Your task to perform on an android device: What's on my calendar today? Image 0: 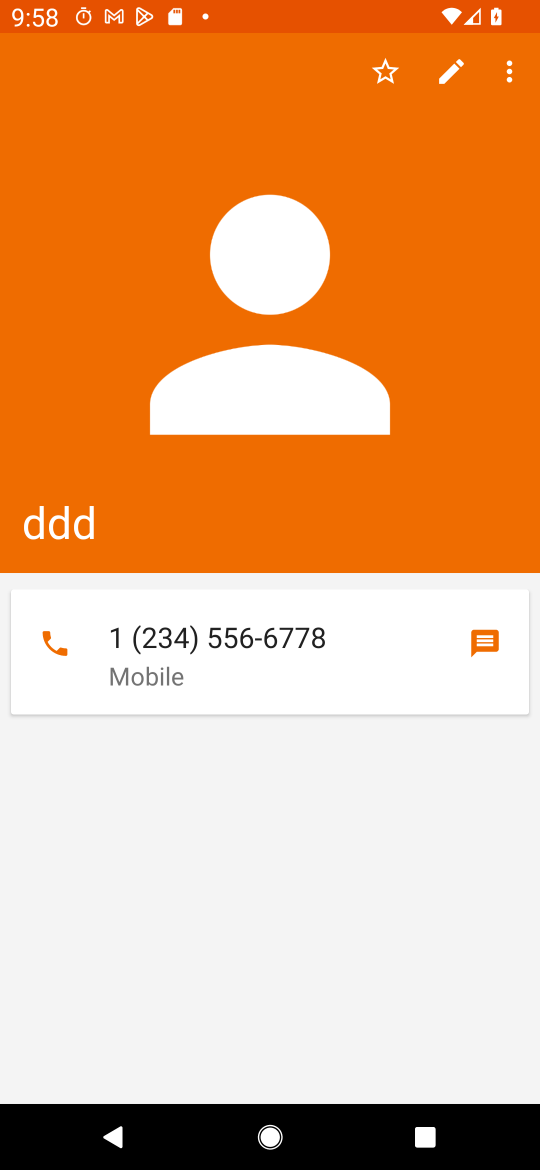
Step 0: press home button
Your task to perform on an android device: What's on my calendar today? Image 1: 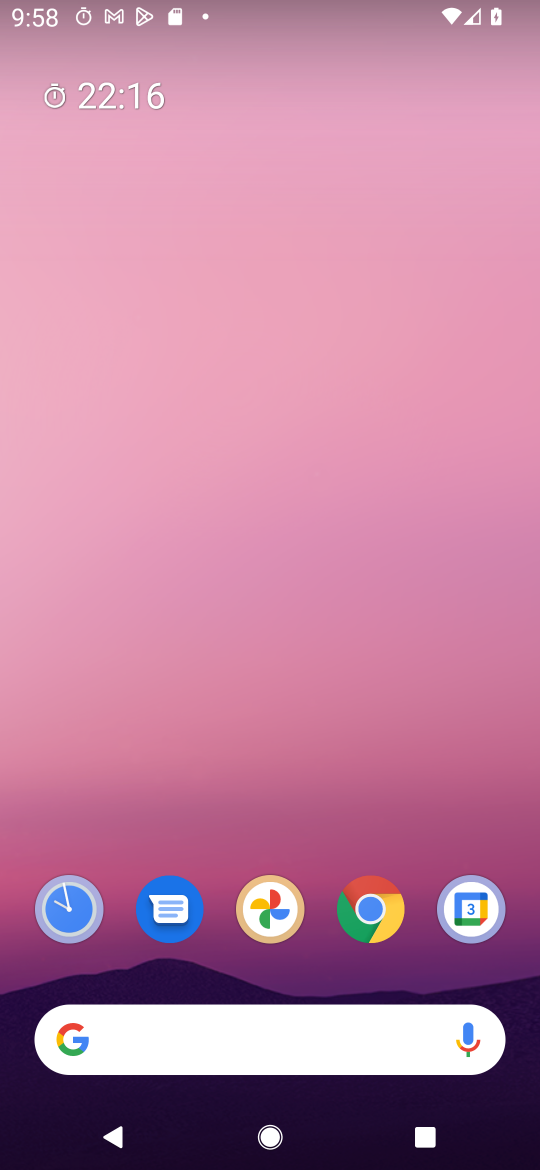
Step 1: drag from (413, 847) to (444, 227)
Your task to perform on an android device: What's on my calendar today? Image 2: 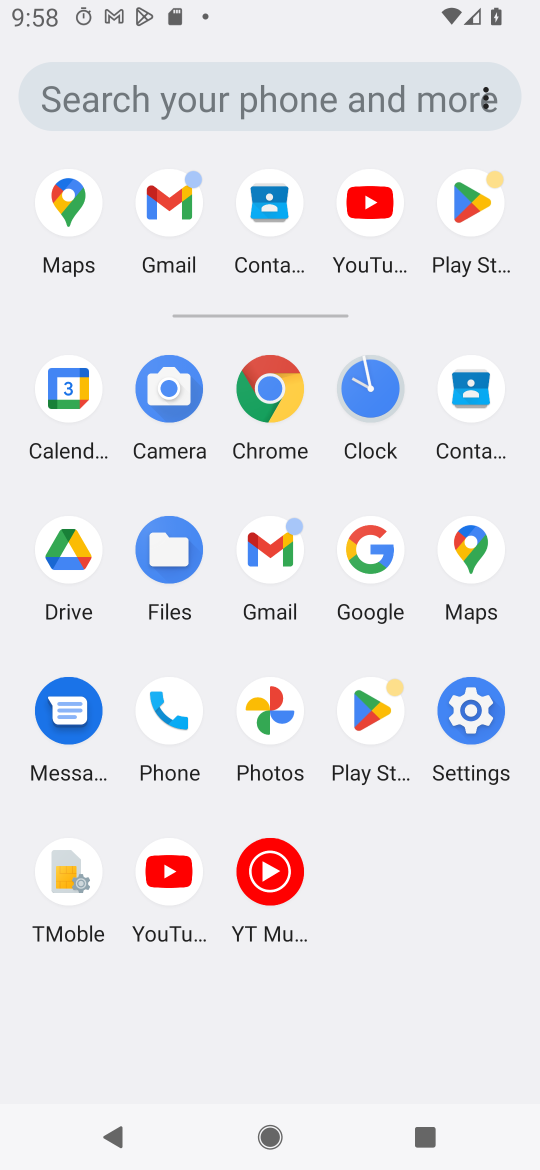
Step 2: click (64, 429)
Your task to perform on an android device: What's on my calendar today? Image 3: 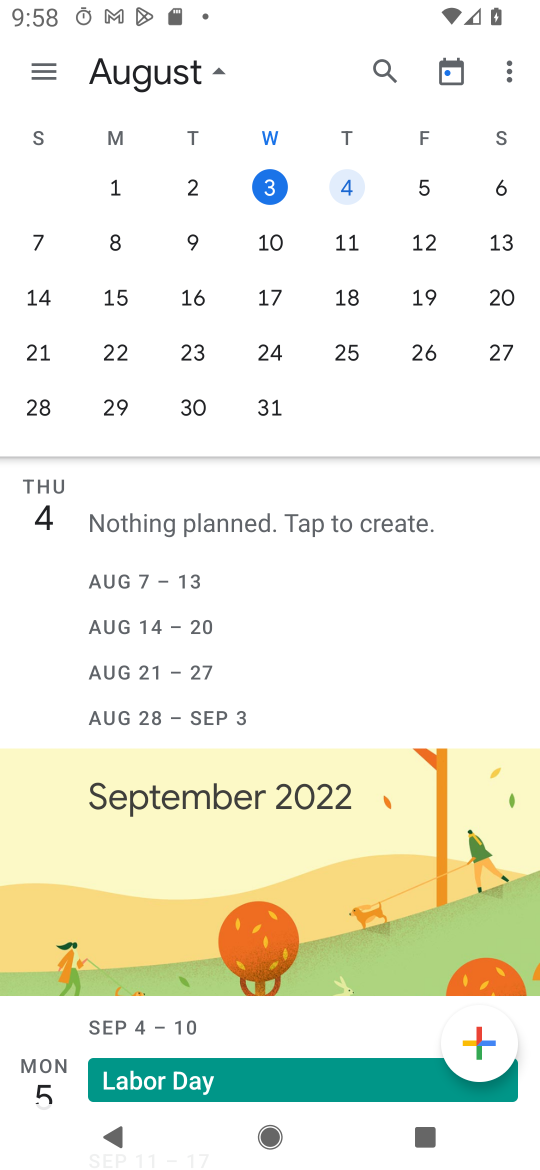
Step 3: click (280, 192)
Your task to perform on an android device: What's on my calendar today? Image 4: 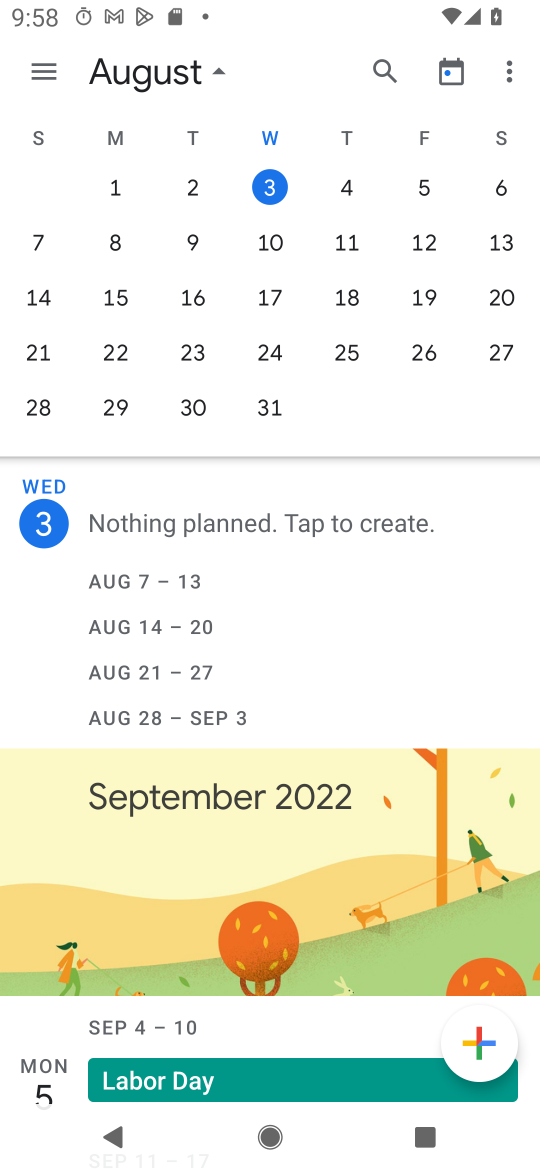
Step 4: task complete